Your task to perform on an android device: add a label to a message in the gmail app Image 0: 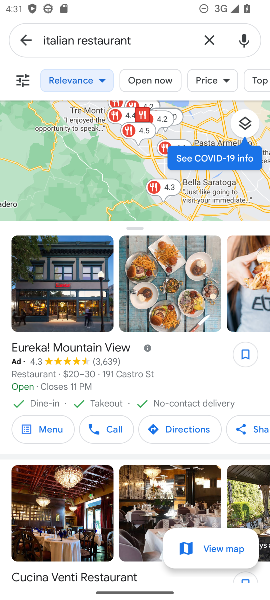
Step 0: press home button
Your task to perform on an android device: add a label to a message in the gmail app Image 1: 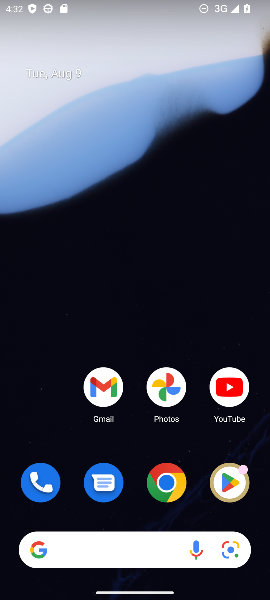
Step 1: click (104, 384)
Your task to perform on an android device: add a label to a message in the gmail app Image 2: 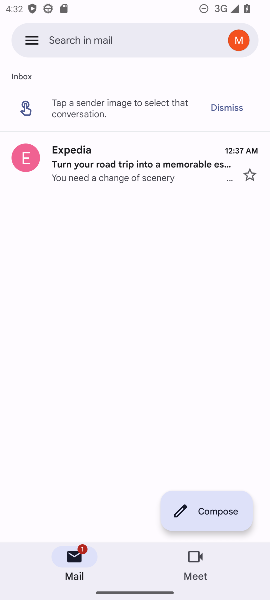
Step 2: click (108, 178)
Your task to perform on an android device: add a label to a message in the gmail app Image 3: 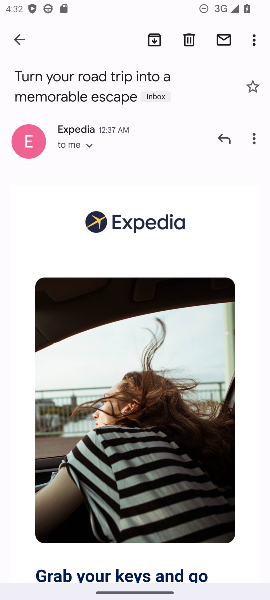
Step 3: click (253, 40)
Your task to perform on an android device: add a label to a message in the gmail app Image 4: 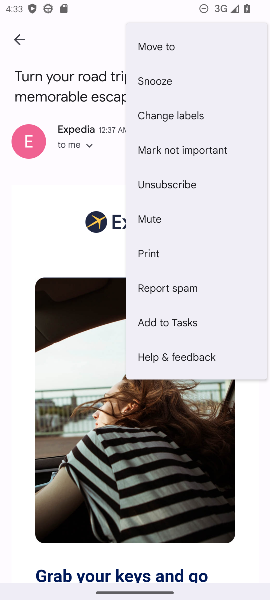
Step 4: click (178, 117)
Your task to perform on an android device: add a label to a message in the gmail app Image 5: 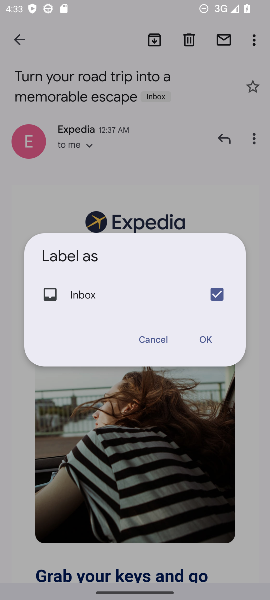
Step 5: click (210, 332)
Your task to perform on an android device: add a label to a message in the gmail app Image 6: 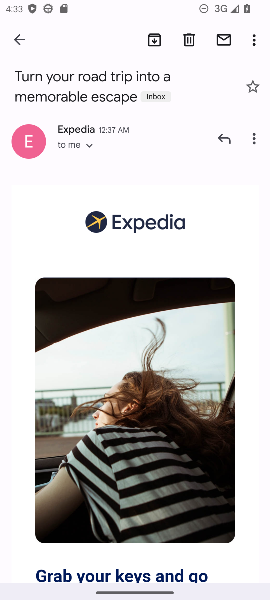
Step 6: task complete